Your task to perform on an android device: Go to CNN.com Image 0: 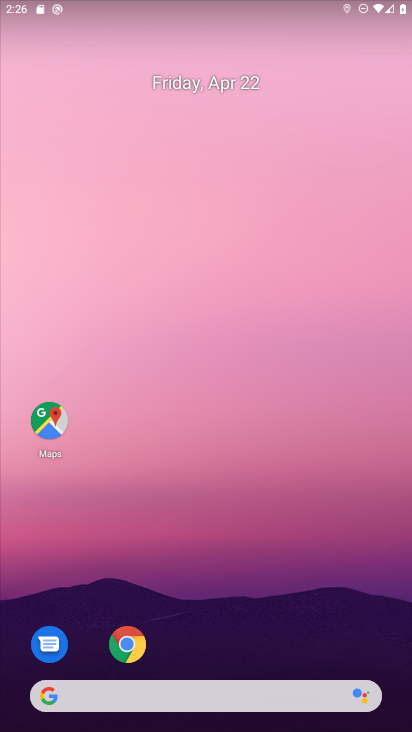
Step 0: drag from (202, 582) to (266, 72)
Your task to perform on an android device: Go to CNN.com Image 1: 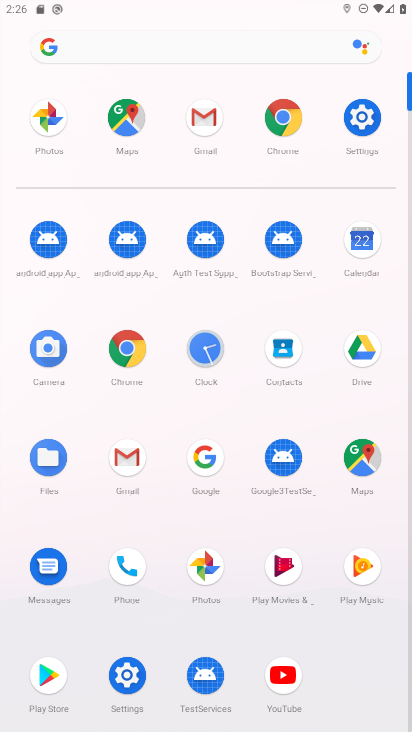
Step 1: click (277, 113)
Your task to perform on an android device: Go to CNN.com Image 2: 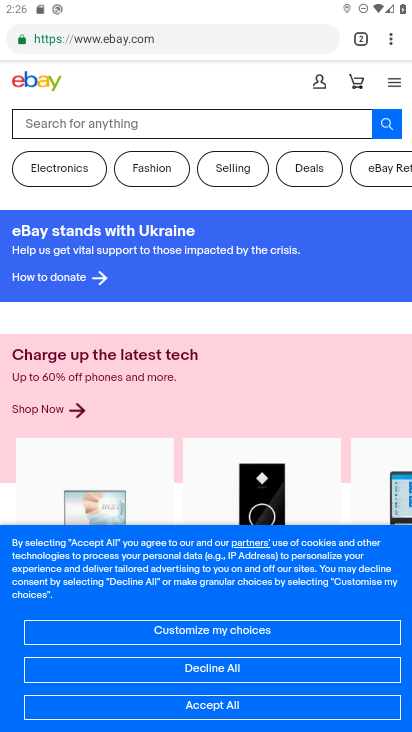
Step 2: click (239, 47)
Your task to perform on an android device: Go to CNN.com Image 3: 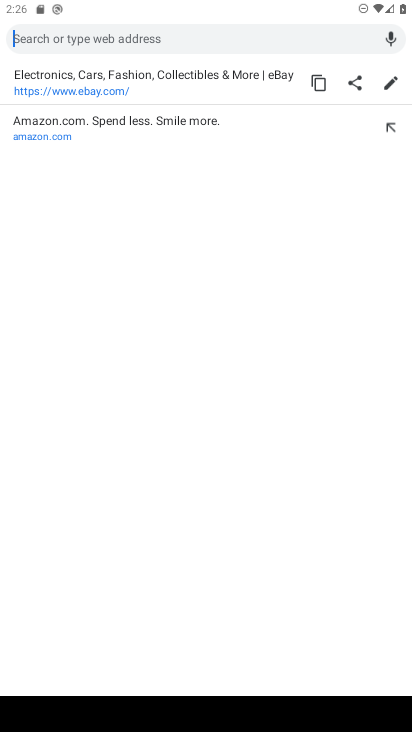
Step 3: type "cnn.com"
Your task to perform on an android device: Go to CNN.com Image 4: 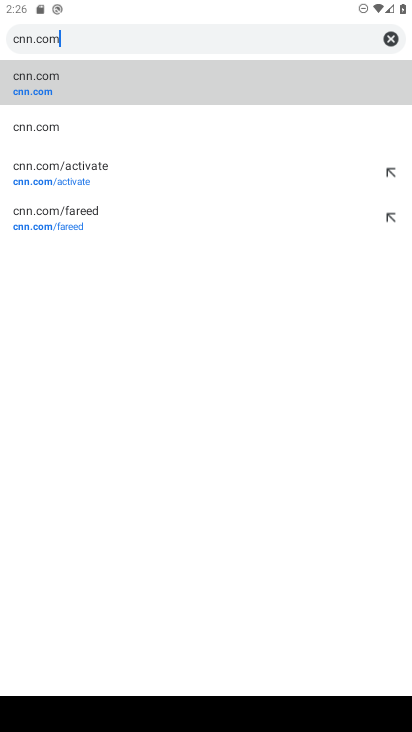
Step 4: click (28, 84)
Your task to perform on an android device: Go to CNN.com Image 5: 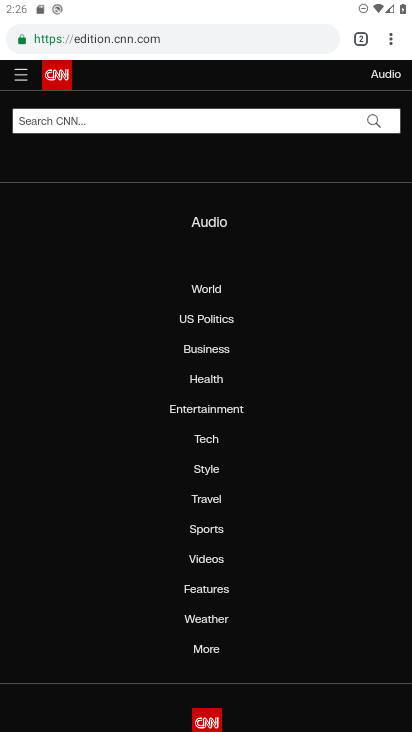
Step 5: task complete